Your task to perform on an android device: uninstall "YouTube Kids" Image 0: 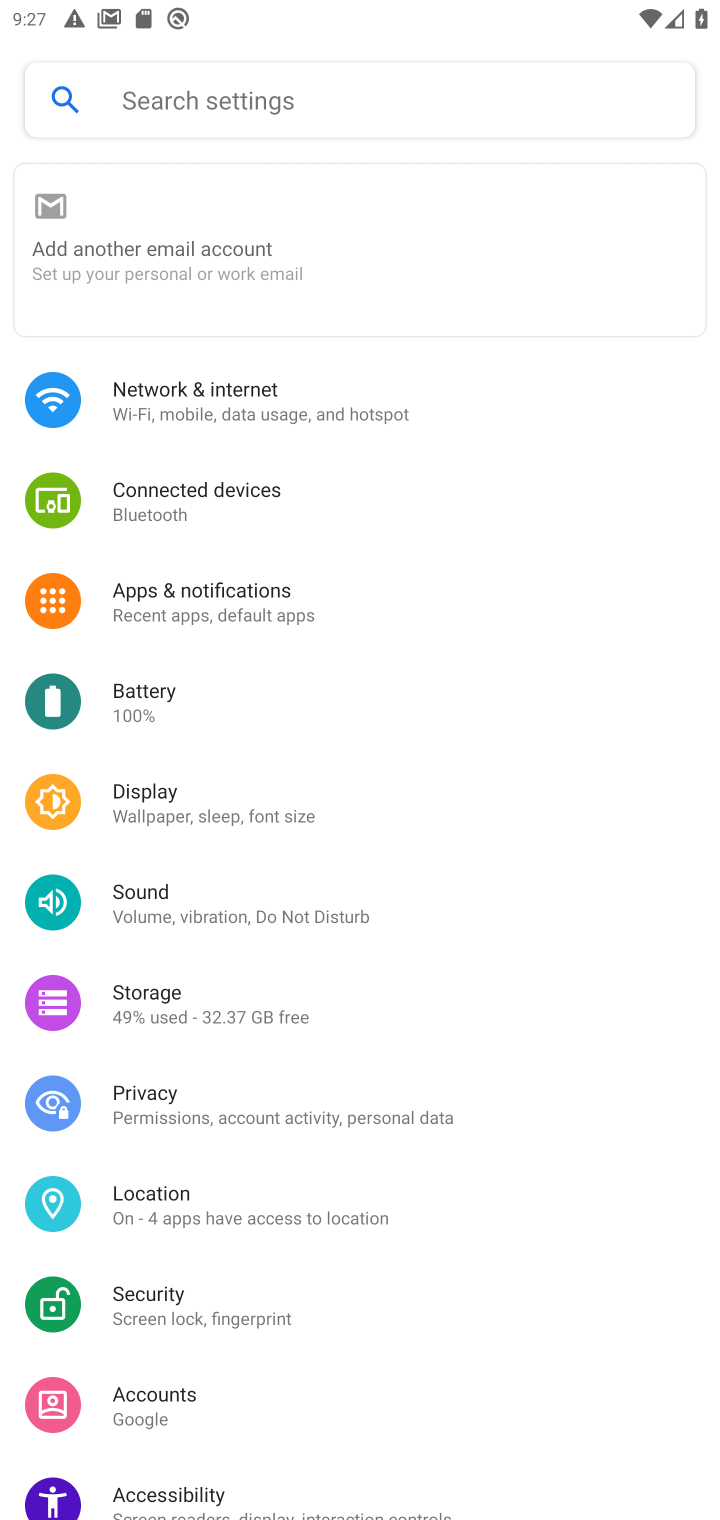
Step 0: press back button
Your task to perform on an android device: uninstall "YouTube Kids" Image 1: 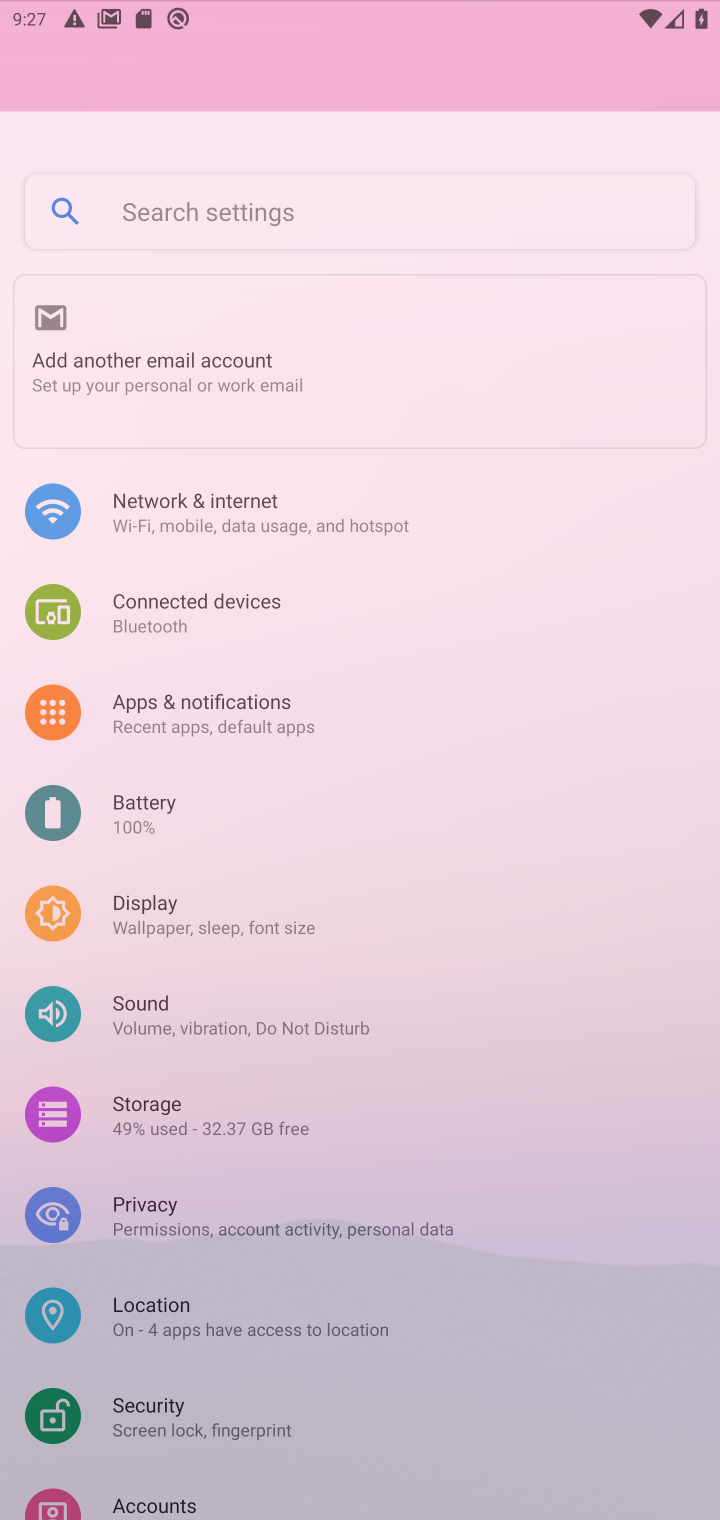
Step 1: press home button
Your task to perform on an android device: uninstall "YouTube Kids" Image 2: 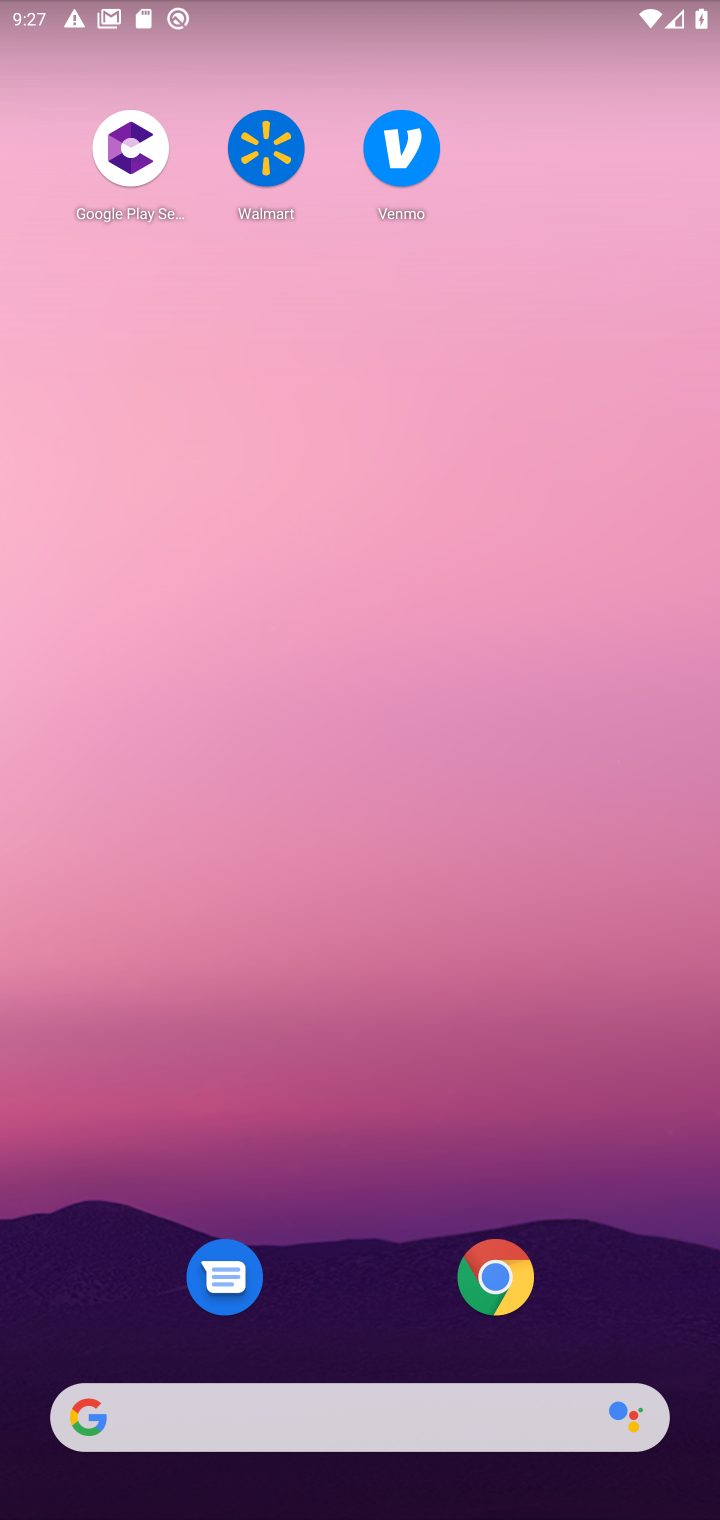
Step 2: drag from (259, 856) to (321, 32)
Your task to perform on an android device: uninstall "YouTube Kids" Image 3: 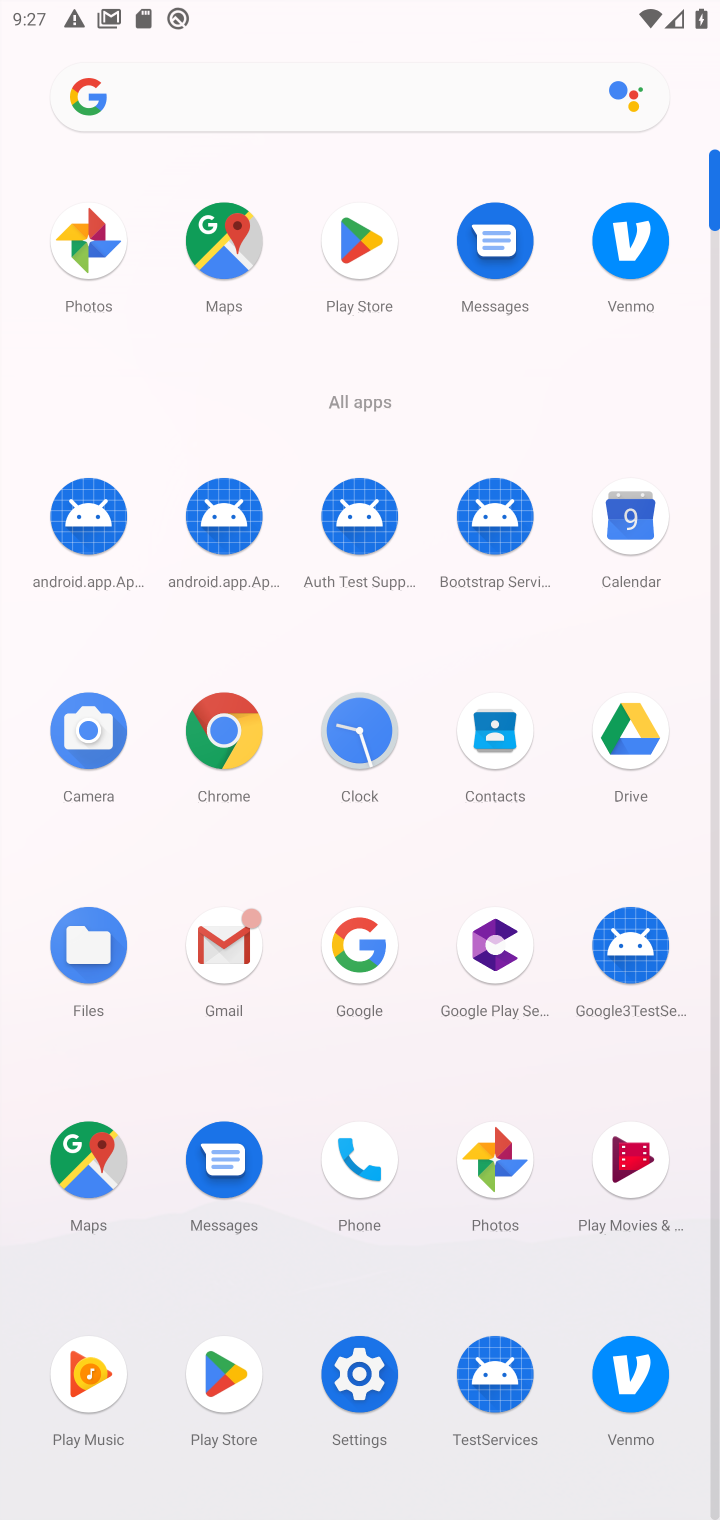
Step 3: click (213, 1369)
Your task to perform on an android device: uninstall "YouTube Kids" Image 4: 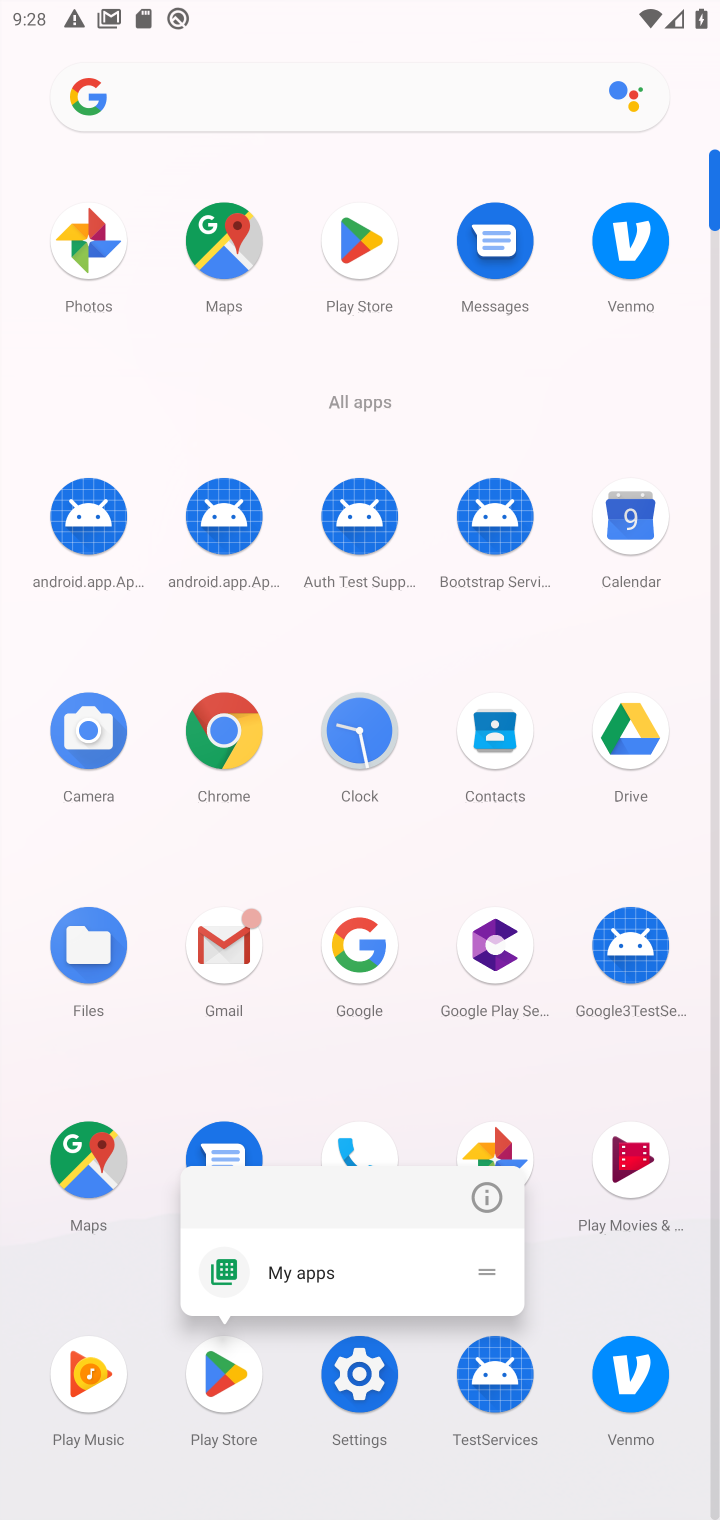
Step 4: click (216, 1397)
Your task to perform on an android device: uninstall "YouTube Kids" Image 5: 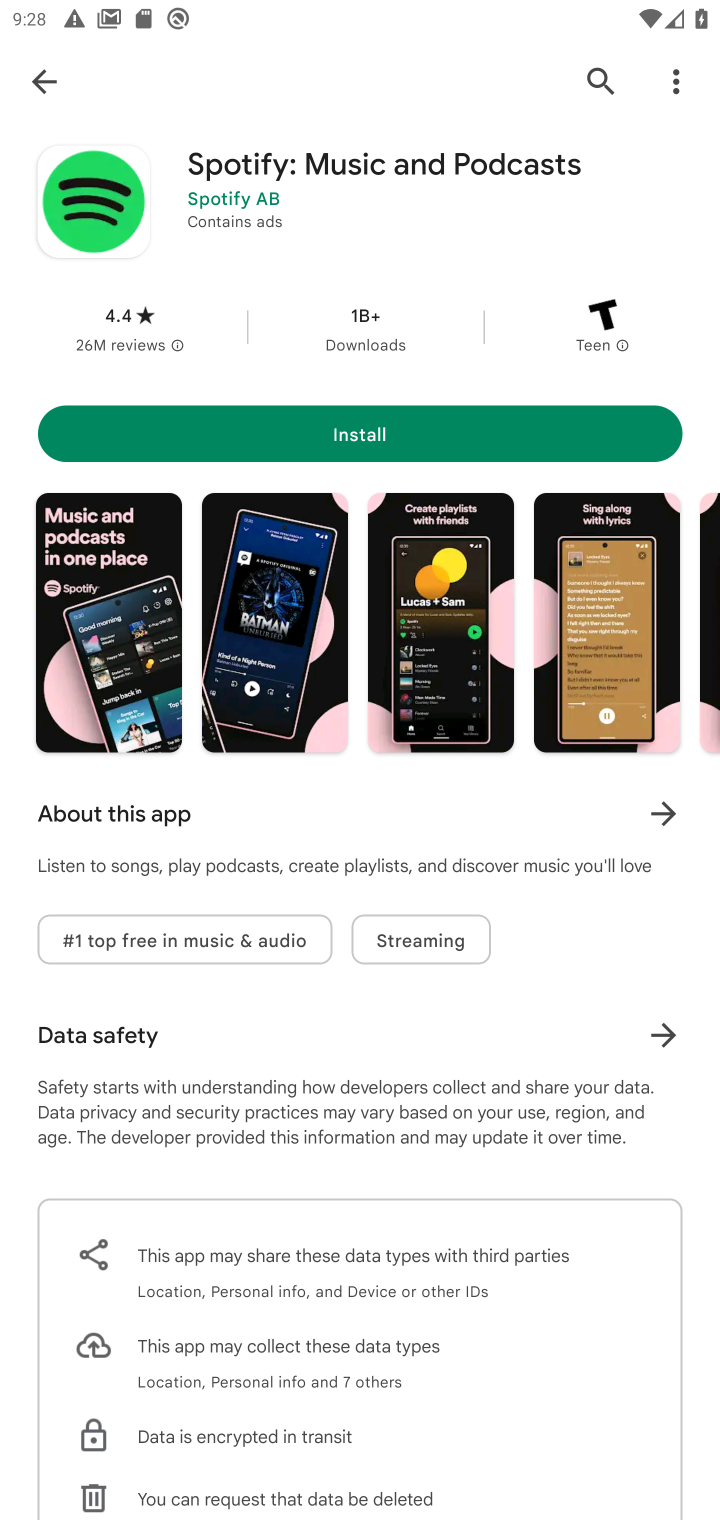
Step 5: click (29, 73)
Your task to perform on an android device: uninstall "YouTube Kids" Image 6: 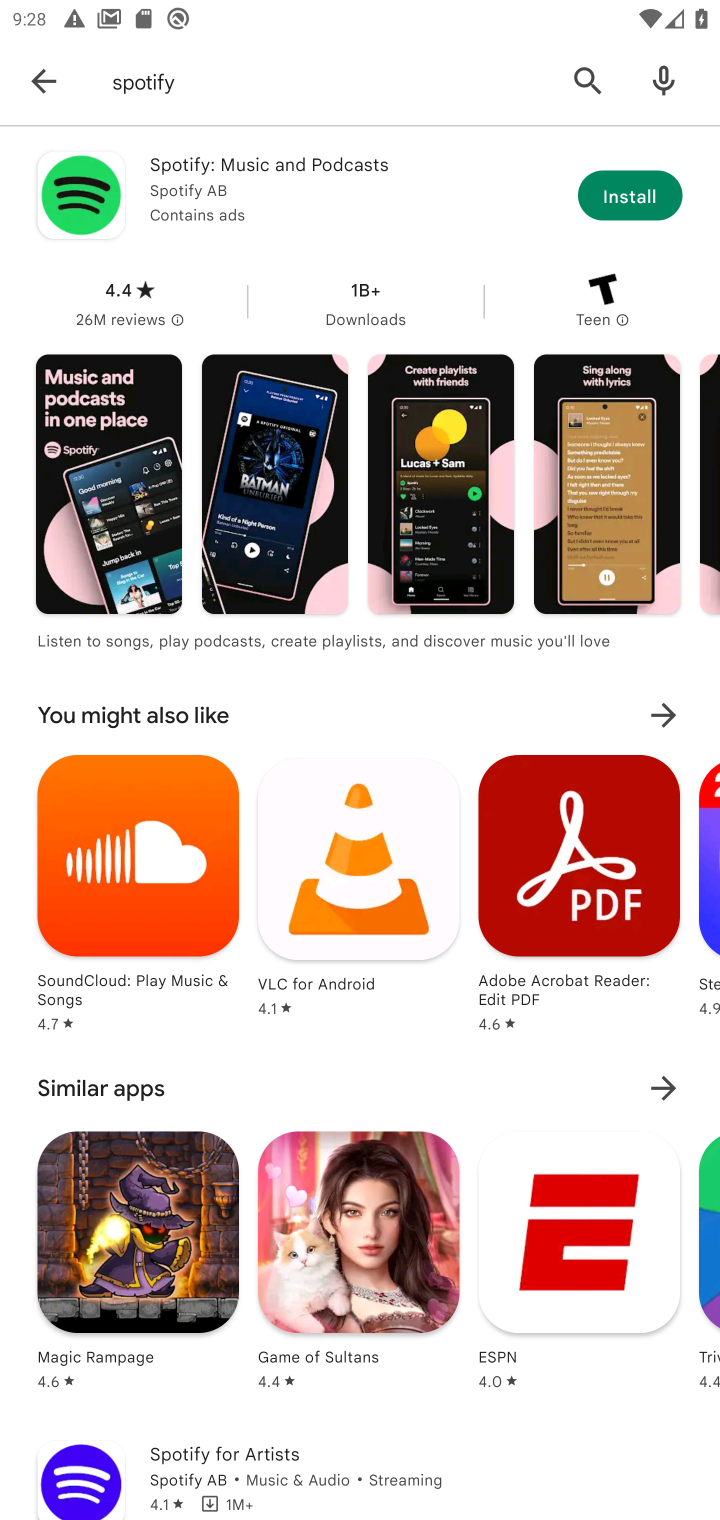
Step 6: click (43, 76)
Your task to perform on an android device: uninstall "YouTube Kids" Image 7: 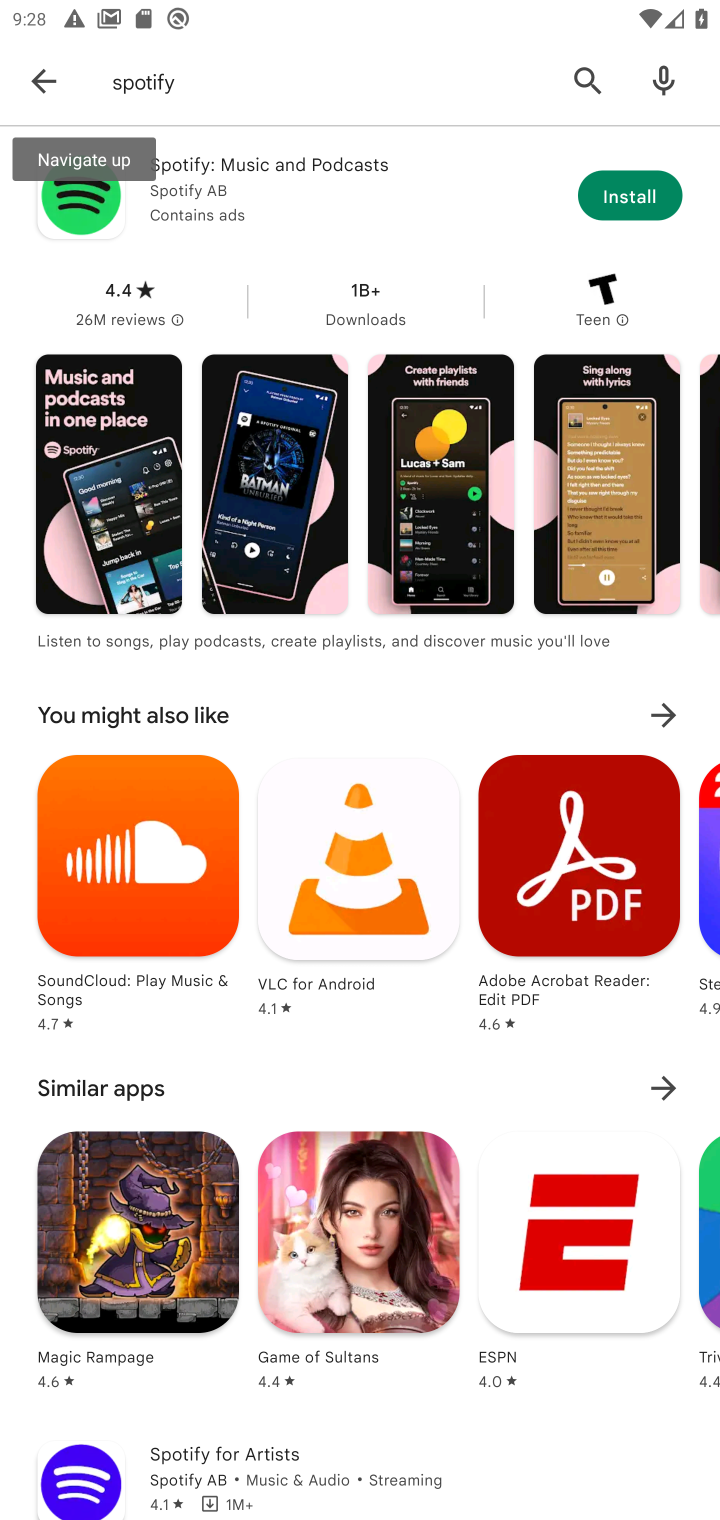
Step 7: click (42, 72)
Your task to perform on an android device: uninstall "YouTube Kids" Image 8: 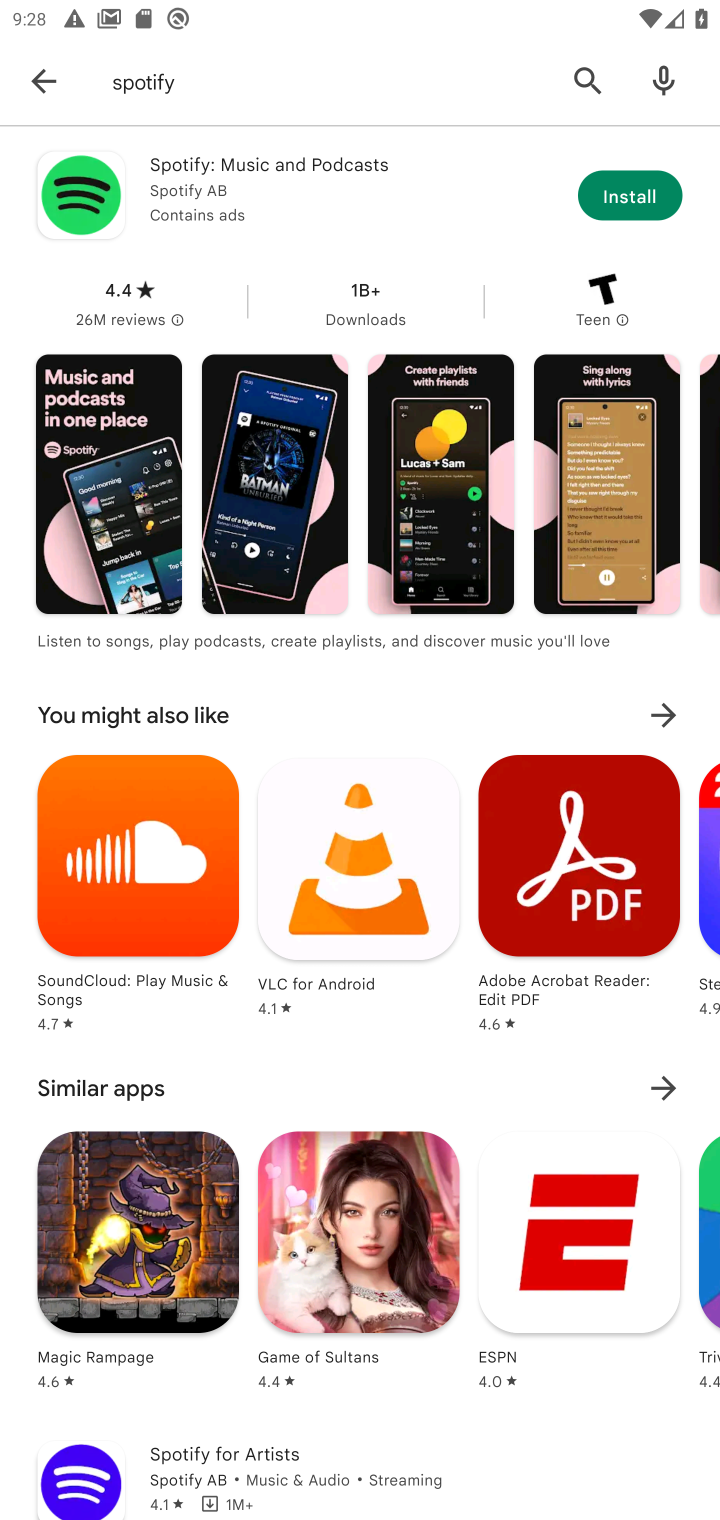
Step 8: click (584, 91)
Your task to perform on an android device: uninstall "YouTube Kids" Image 9: 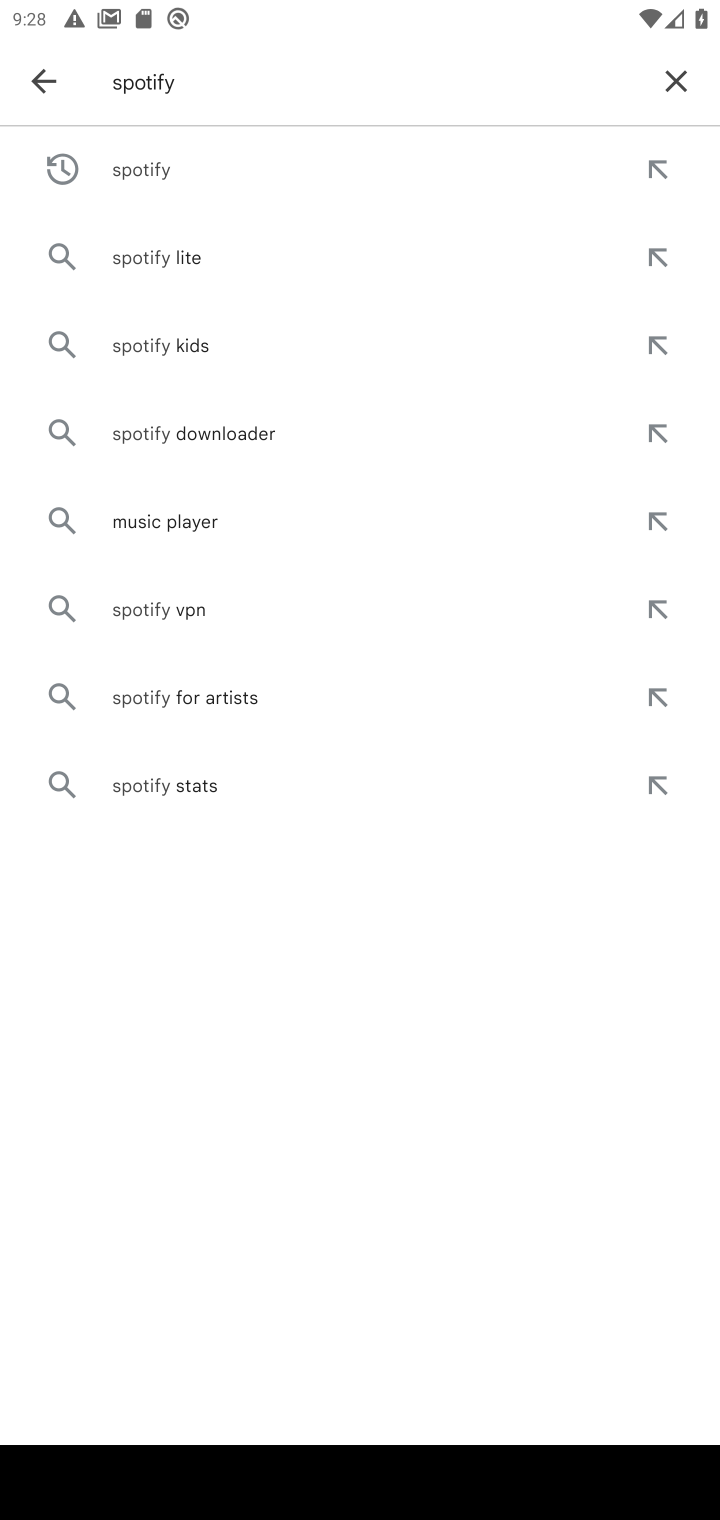
Step 9: click (690, 80)
Your task to perform on an android device: uninstall "YouTube Kids" Image 10: 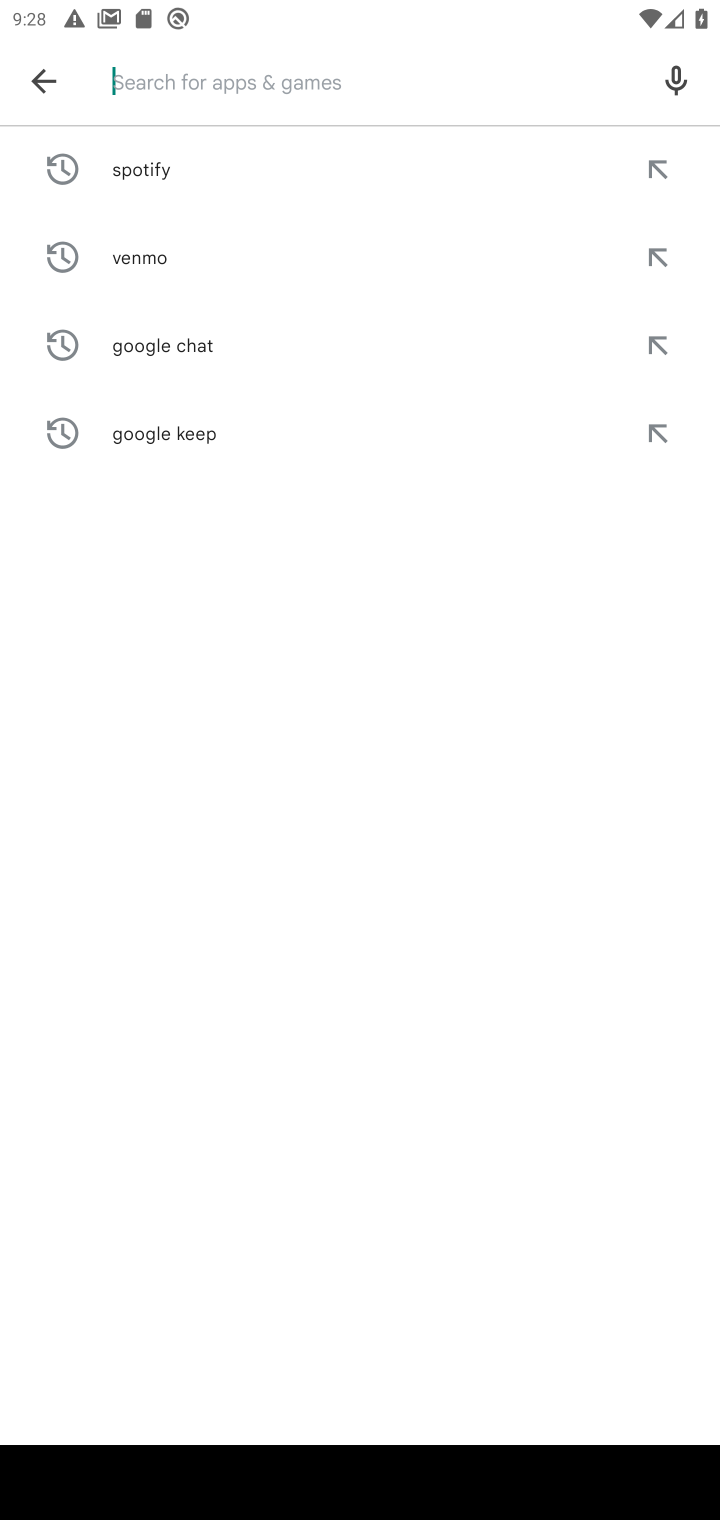
Step 10: type "YouTube Kids"
Your task to perform on an android device: uninstall "YouTube Kids" Image 11: 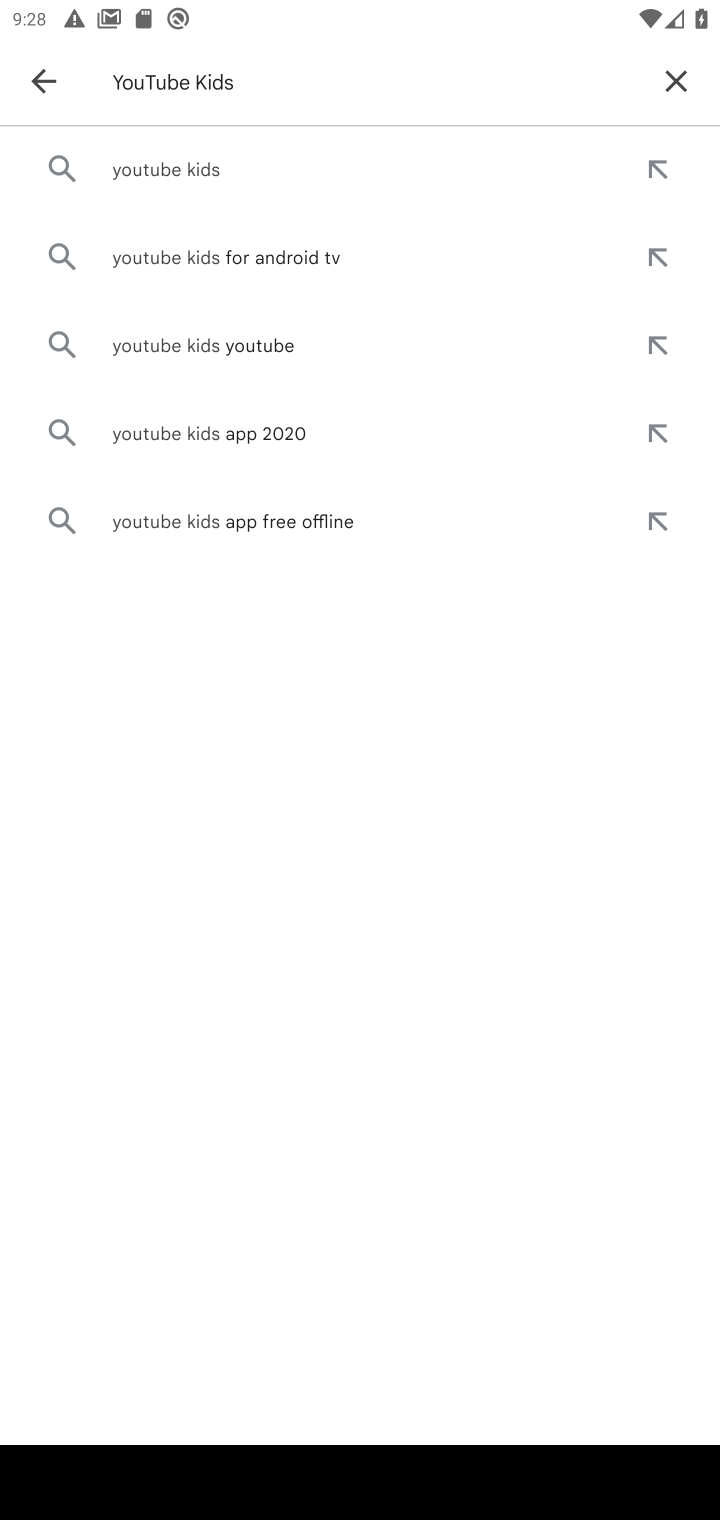
Step 11: click (154, 168)
Your task to perform on an android device: uninstall "YouTube Kids" Image 12: 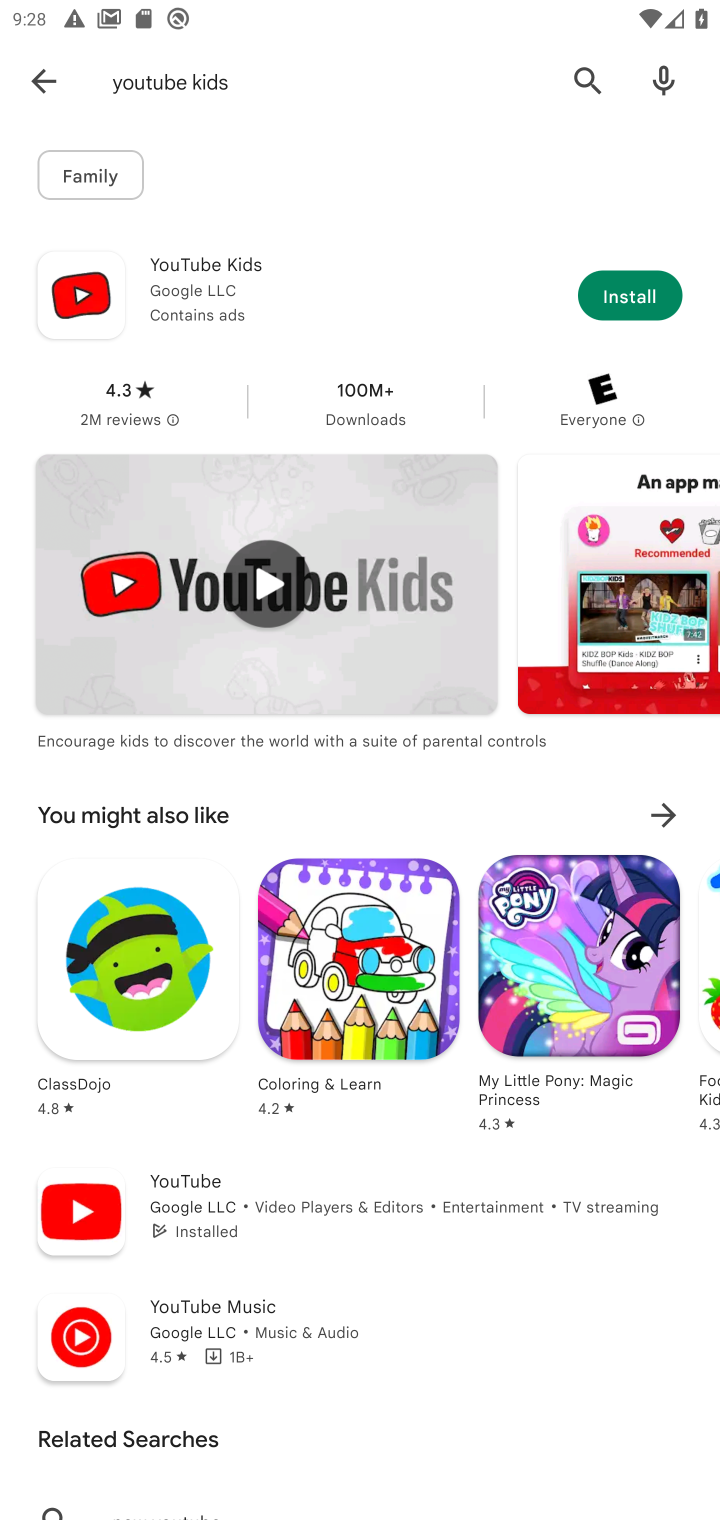
Step 12: click (181, 228)
Your task to perform on an android device: uninstall "YouTube Kids" Image 13: 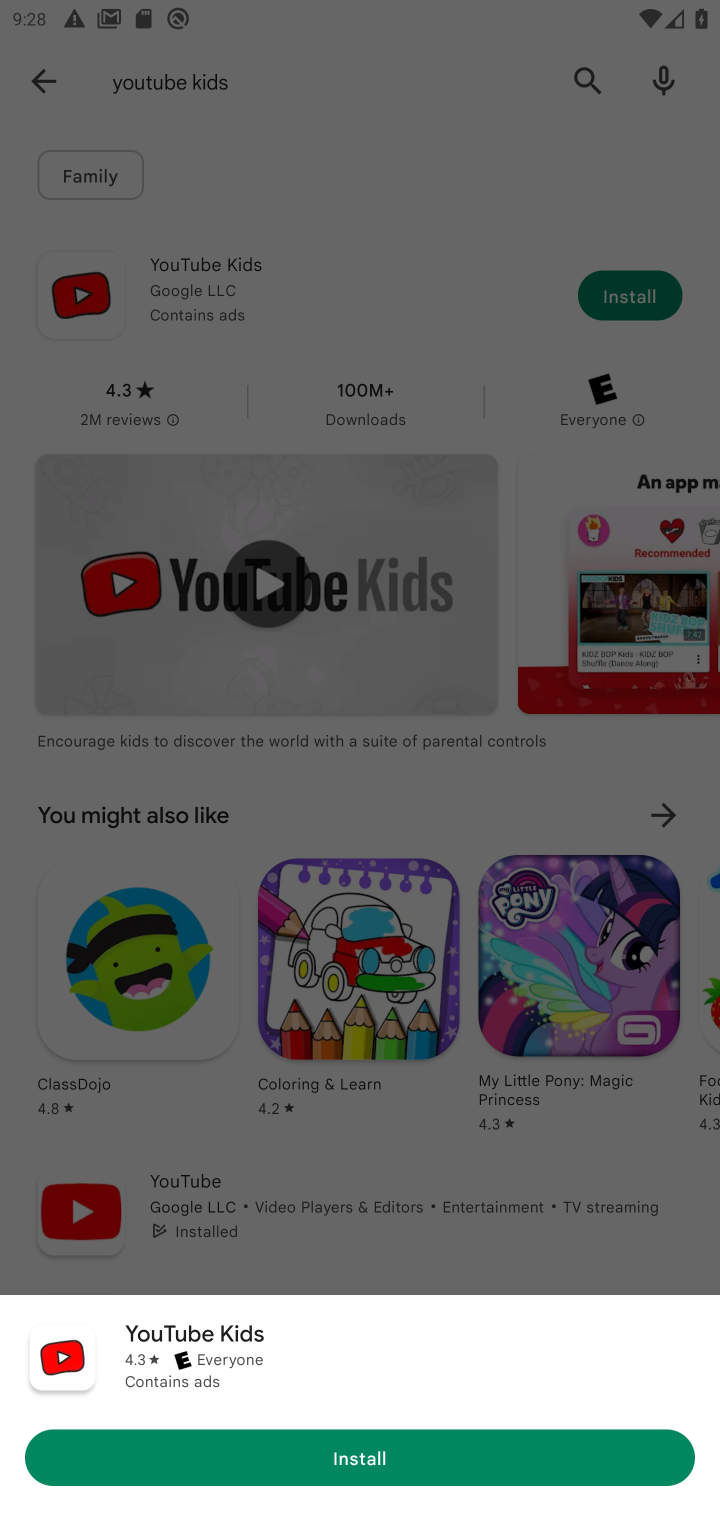
Step 13: task complete